Your task to perform on an android device: Is it going to rain this weekend? Image 0: 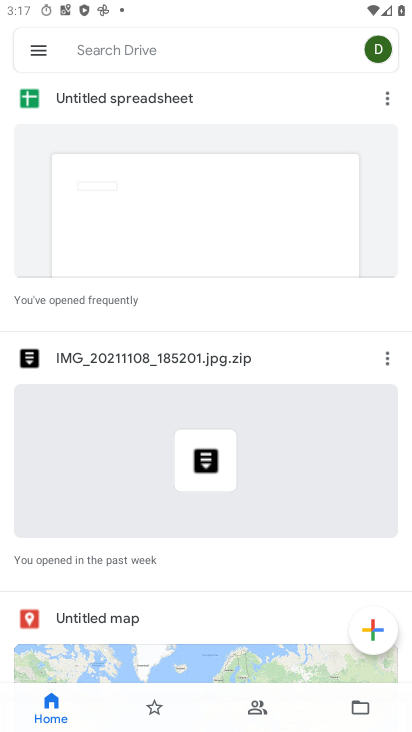
Step 0: press home button
Your task to perform on an android device: Is it going to rain this weekend? Image 1: 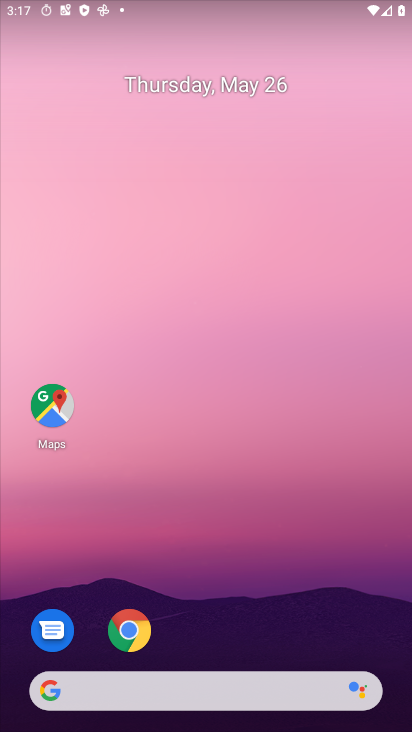
Step 1: click (287, 677)
Your task to perform on an android device: Is it going to rain this weekend? Image 2: 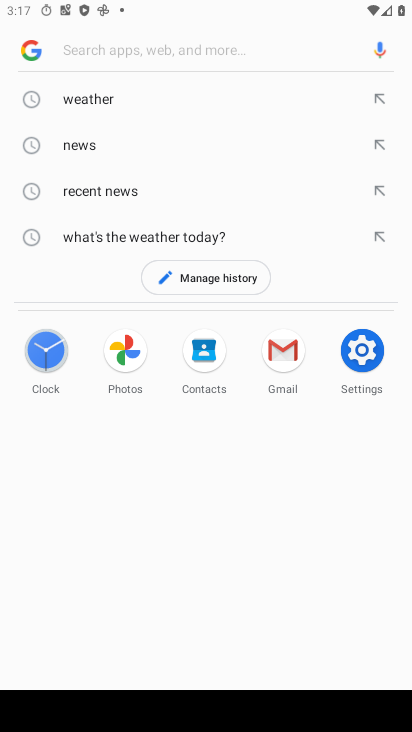
Step 2: click (172, 92)
Your task to perform on an android device: Is it going to rain this weekend? Image 3: 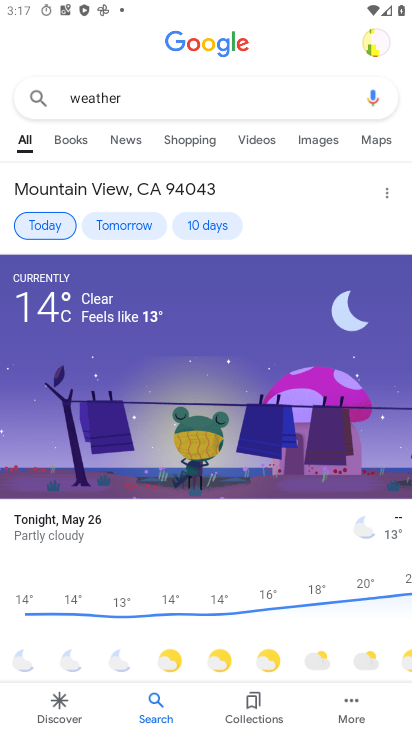
Step 3: click (202, 231)
Your task to perform on an android device: Is it going to rain this weekend? Image 4: 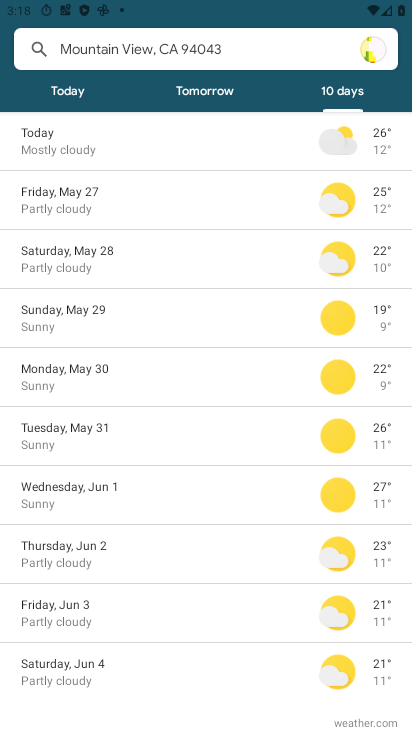
Step 4: task complete